Your task to perform on an android device: manage bookmarks in the chrome app Image 0: 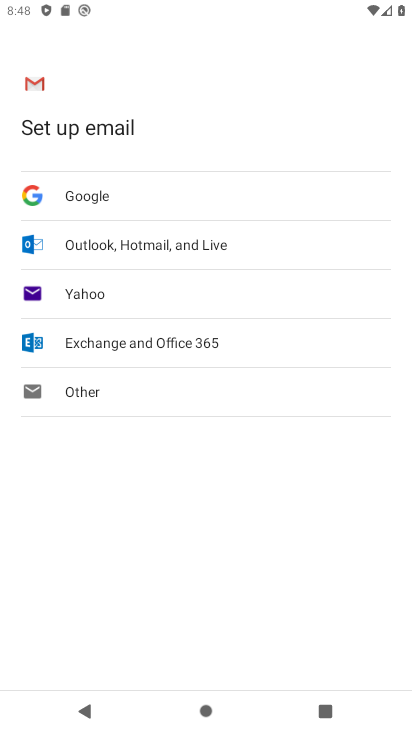
Step 0: press home button
Your task to perform on an android device: manage bookmarks in the chrome app Image 1: 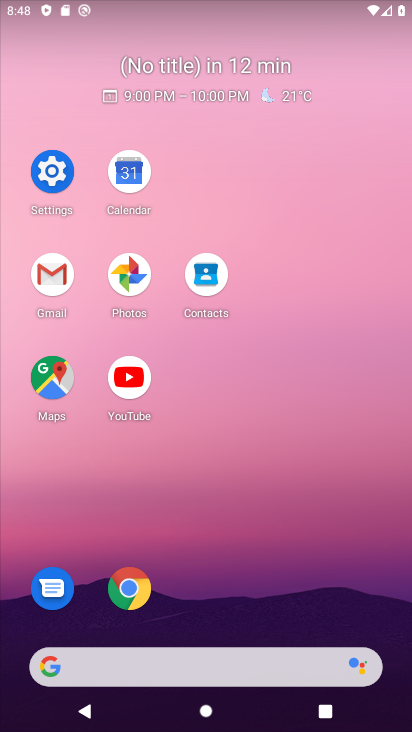
Step 1: click (136, 594)
Your task to perform on an android device: manage bookmarks in the chrome app Image 2: 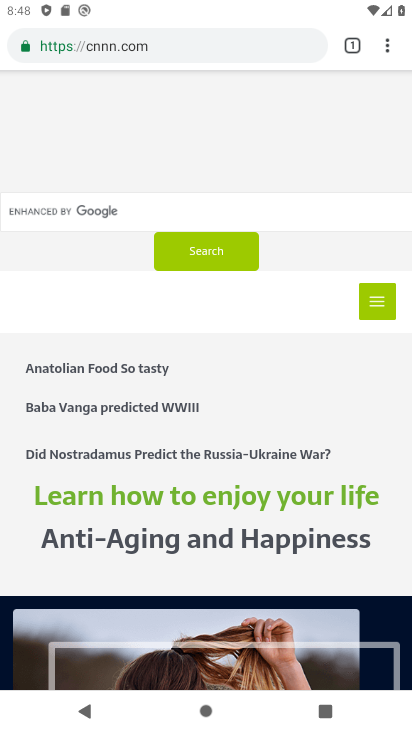
Step 2: click (386, 49)
Your task to perform on an android device: manage bookmarks in the chrome app Image 3: 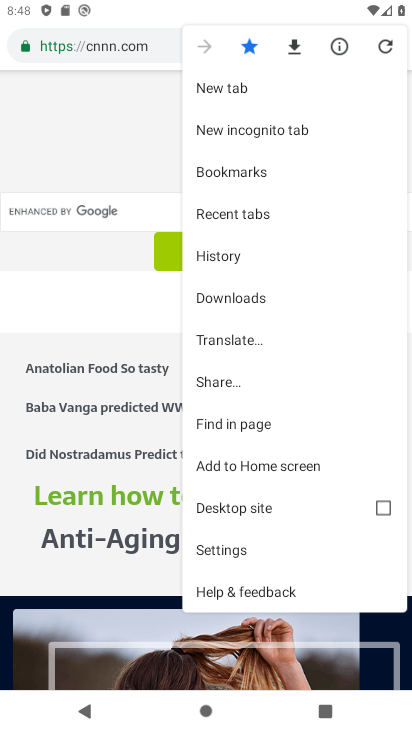
Step 3: click (249, 164)
Your task to perform on an android device: manage bookmarks in the chrome app Image 4: 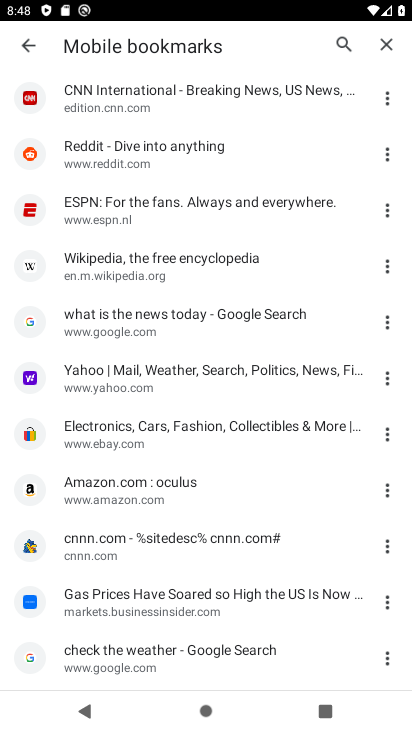
Step 4: click (393, 92)
Your task to perform on an android device: manage bookmarks in the chrome app Image 5: 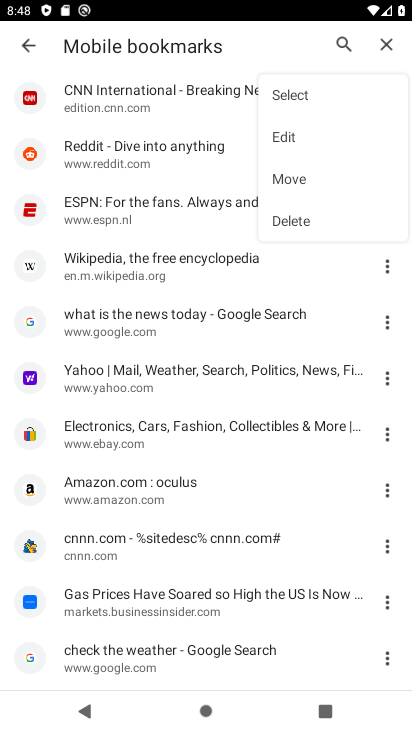
Step 5: click (293, 214)
Your task to perform on an android device: manage bookmarks in the chrome app Image 6: 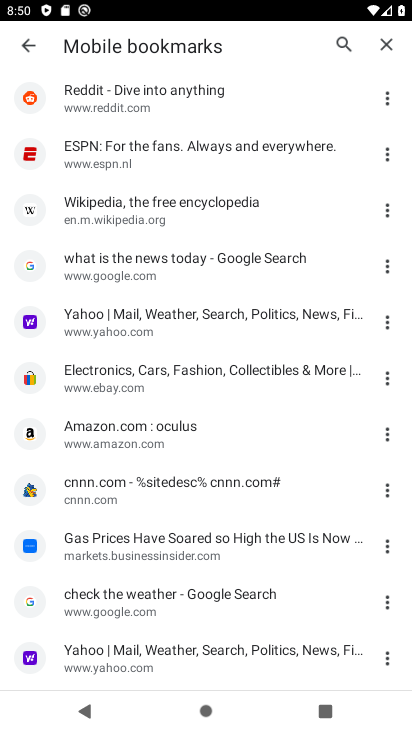
Step 6: task complete